Your task to perform on an android device: Open wifi settings Image 0: 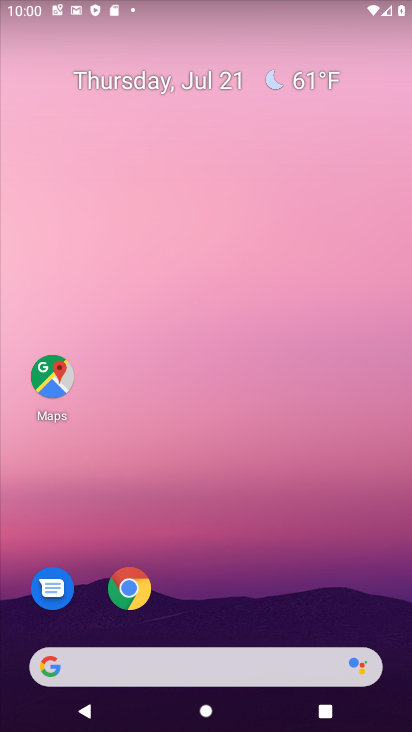
Step 0: drag from (218, 29) to (203, 636)
Your task to perform on an android device: Open wifi settings Image 1: 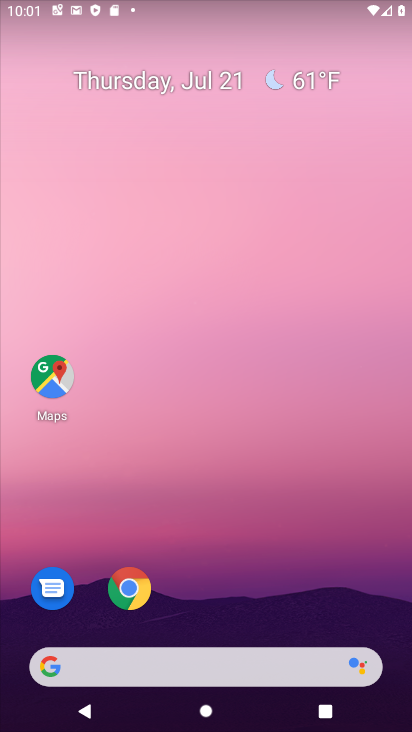
Step 1: drag from (173, 58) to (256, 721)
Your task to perform on an android device: Open wifi settings Image 2: 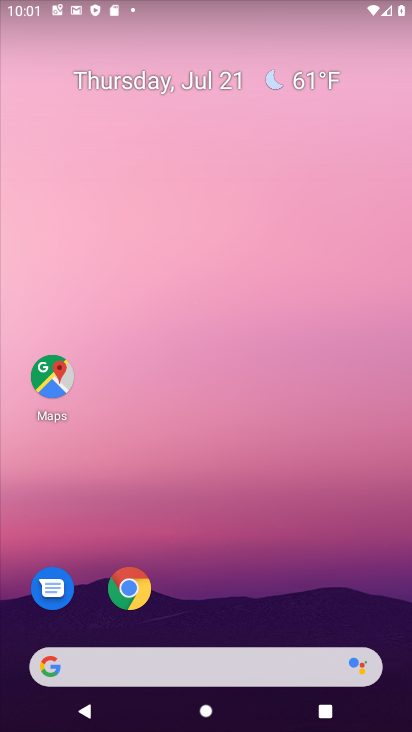
Step 2: drag from (102, 7) to (117, 569)
Your task to perform on an android device: Open wifi settings Image 3: 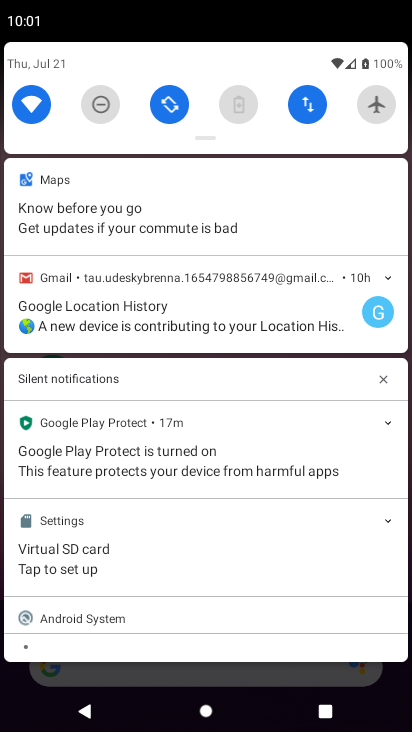
Step 3: click (24, 102)
Your task to perform on an android device: Open wifi settings Image 4: 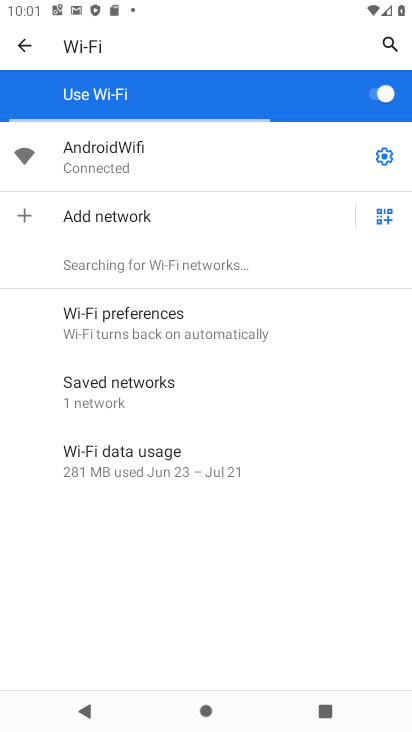
Step 4: task complete